Your task to perform on an android device: check android version Image 0: 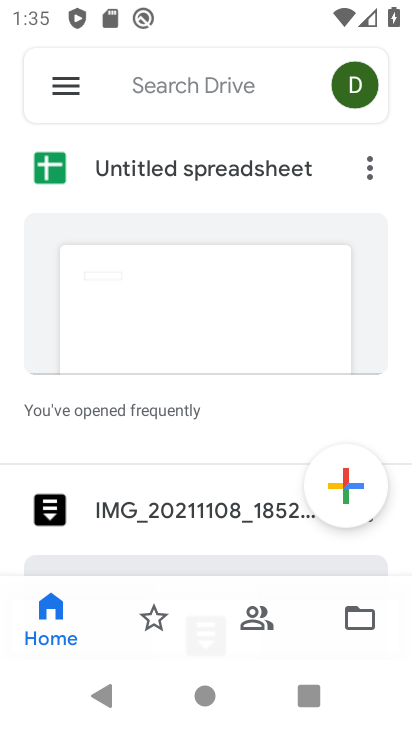
Step 0: press back button
Your task to perform on an android device: check android version Image 1: 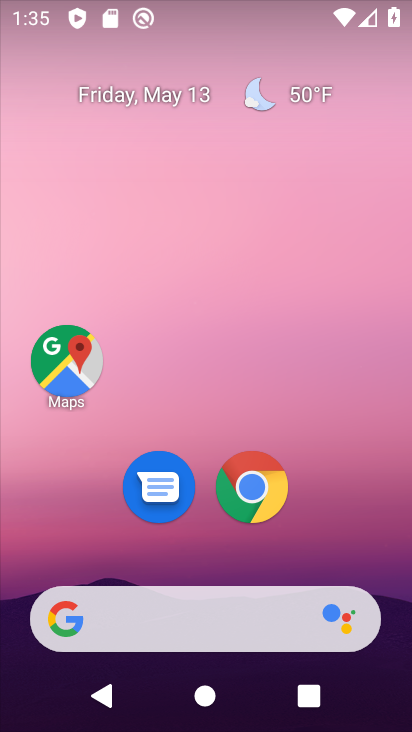
Step 1: drag from (162, 585) to (272, 149)
Your task to perform on an android device: check android version Image 2: 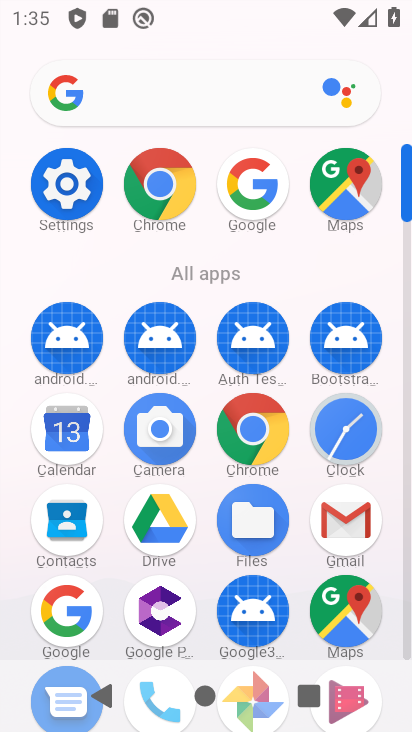
Step 2: drag from (206, 543) to (315, 212)
Your task to perform on an android device: check android version Image 3: 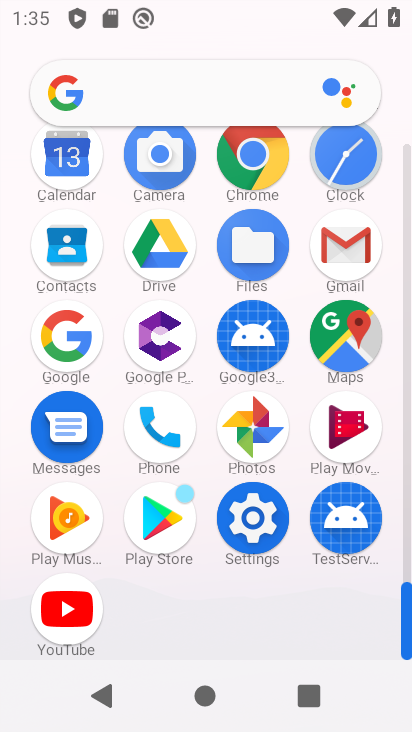
Step 3: click (258, 532)
Your task to perform on an android device: check android version Image 4: 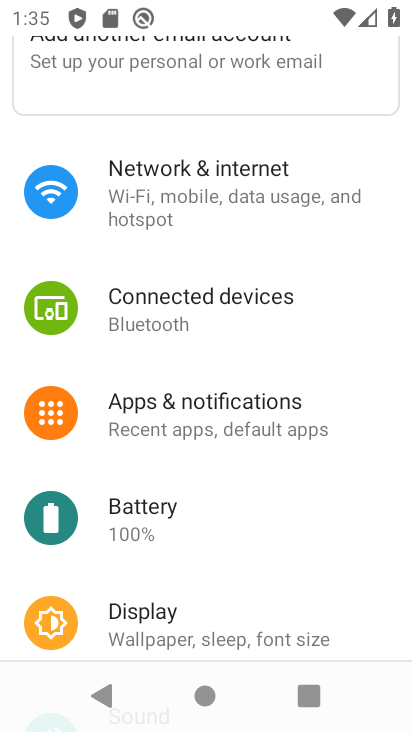
Step 4: drag from (192, 564) to (388, 115)
Your task to perform on an android device: check android version Image 5: 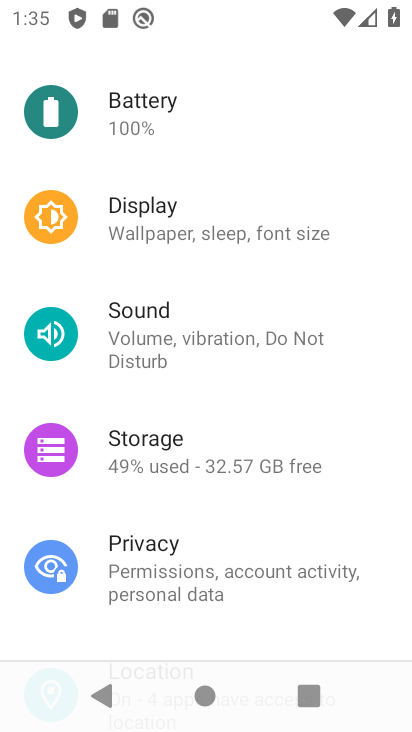
Step 5: drag from (170, 517) to (380, 30)
Your task to perform on an android device: check android version Image 6: 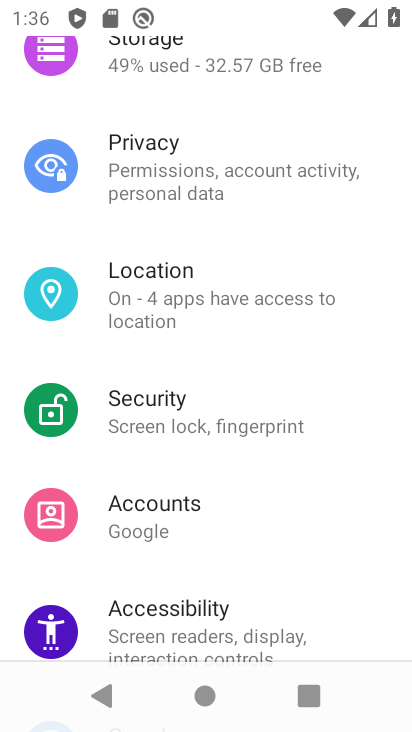
Step 6: drag from (206, 595) to (376, 51)
Your task to perform on an android device: check android version Image 7: 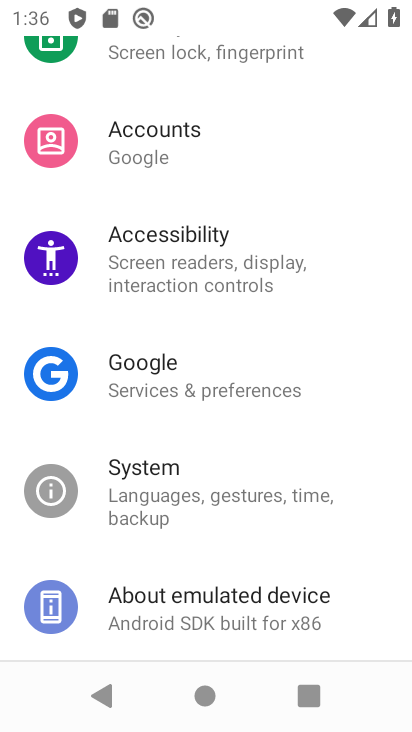
Step 7: drag from (203, 608) to (350, 150)
Your task to perform on an android device: check android version Image 8: 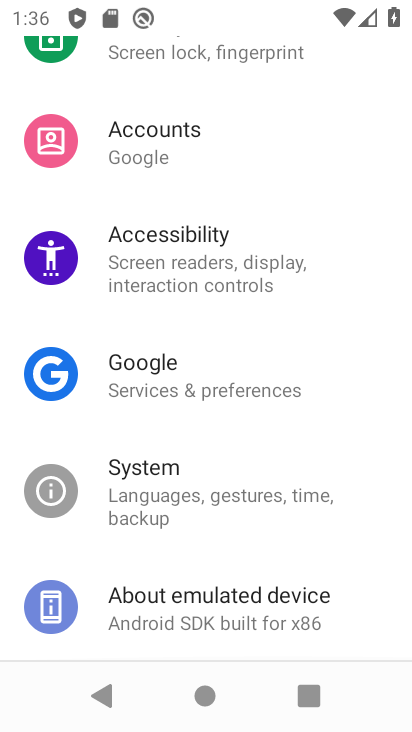
Step 8: click (237, 611)
Your task to perform on an android device: check android version Image 9: 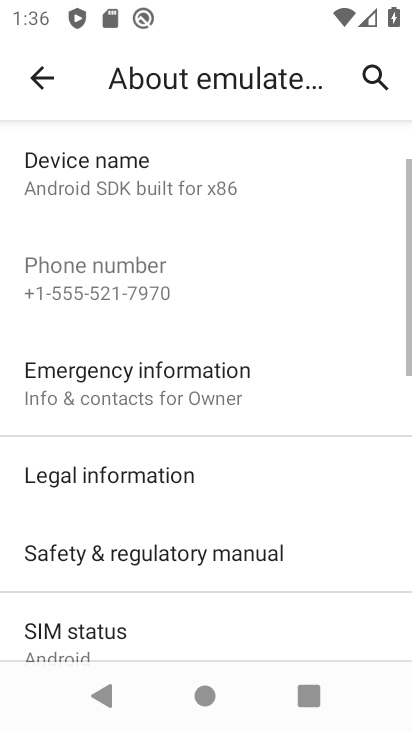
Step 9: drag from (49, 586) to (296, 127)
Your task to perform on an android device: check android version Image 10: 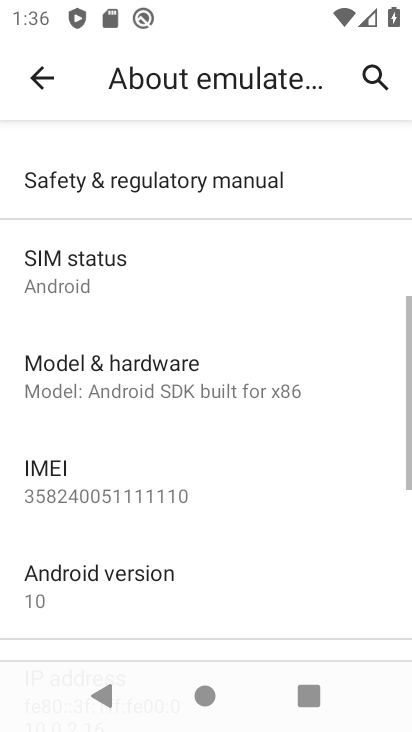
Step 10: drag from (183, 617) to (261, 387)
Your task to perform on an android device: check android version Image 11: 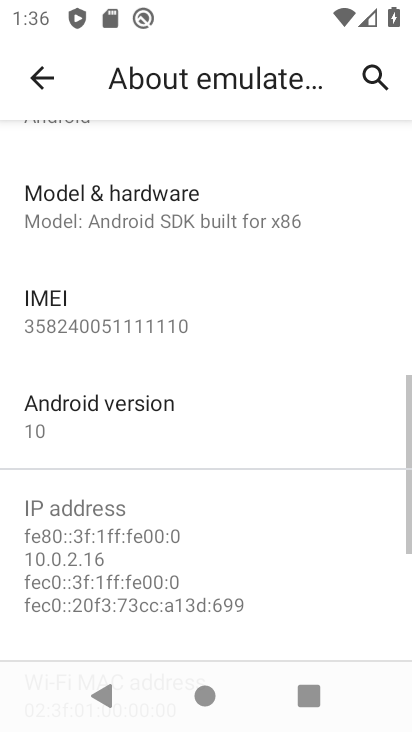
Step 11: click (200, 418)
Your task to perform on an android device: check android version Image 12: 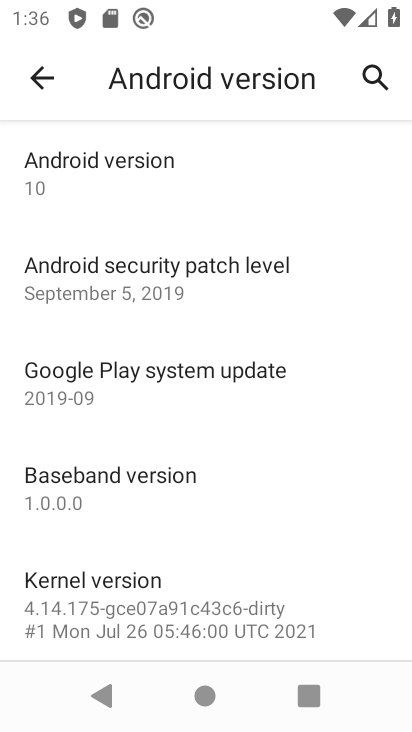
Step 12: click (167, 175)
Your task to perform on an android device: check android version Image 13: 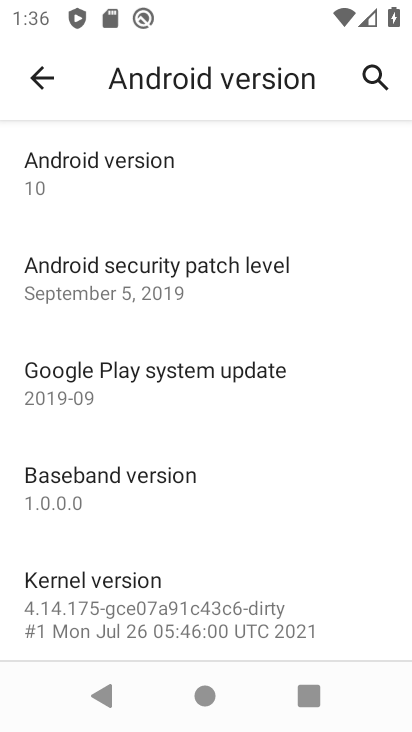
Step 13: task complete